Your task to perform on an android device: Go to network settings Image 0: 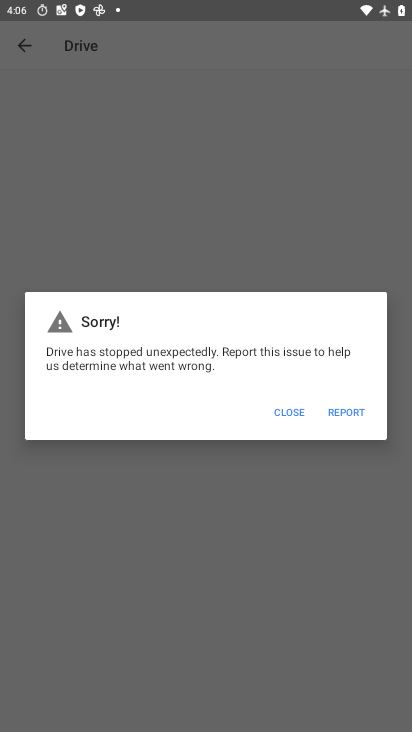
Step 0: press home button
Your task to perform on an android device: Go to network settings Image 1: 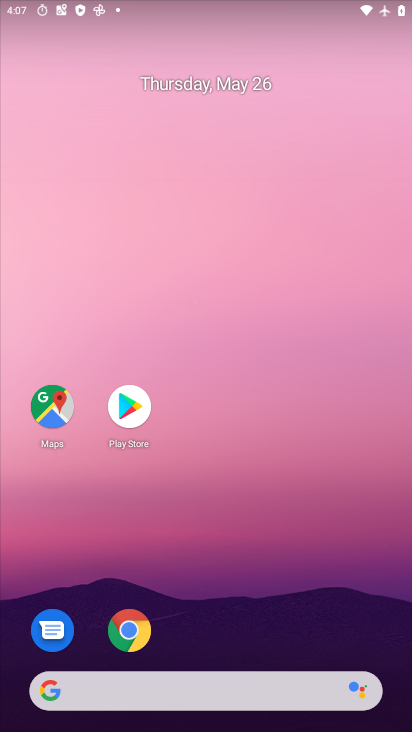
Step 1: drag from (253, 583) to (223, 39)
Your task to perform on an android device: Go to network settings Image 2: 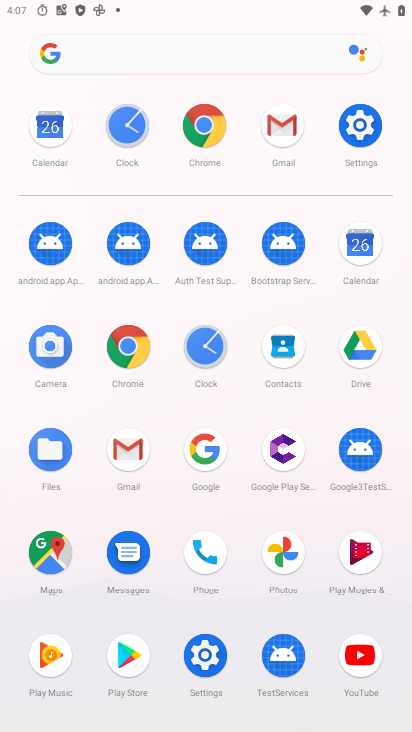
Step 2: click (360, 123)
Your task to perform on an android device: Go to network settings Image 3: 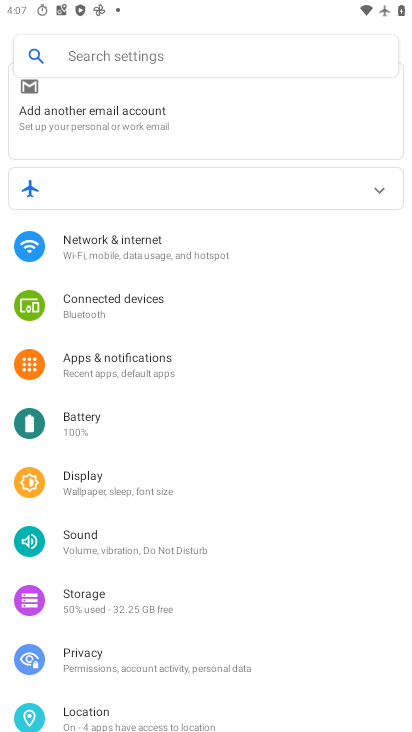
Step 3: click (149, 248)
Your task to perform on an android device: Go to network settings Image 4: 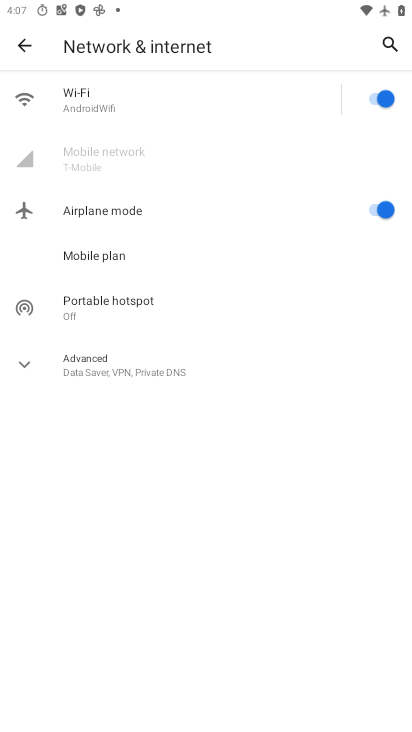
Step 4: task complete